Your task to perform on an android device: remove spam from my inbox in the gmail app Image 0: 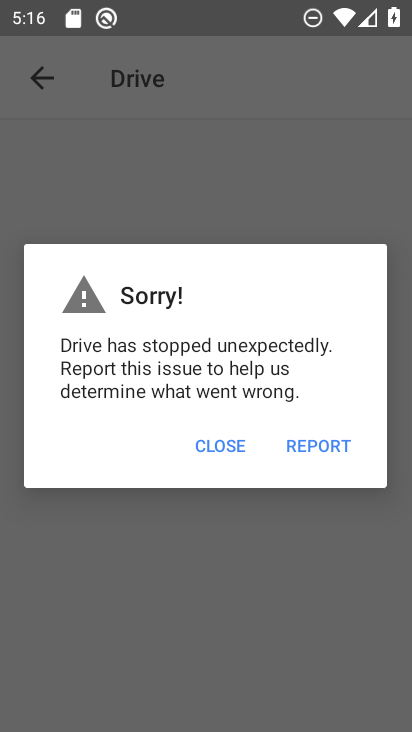
Step 0: press back button
Your task to perform on an android device: remove spam from my inbox in the gmail app Image 1: 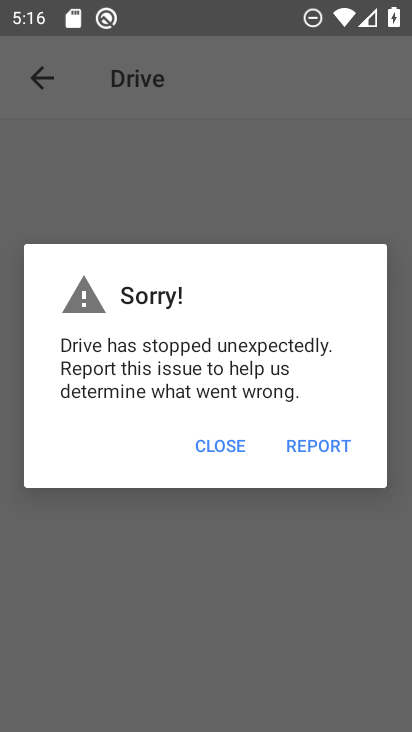
Step 1: press home button
Your task to perform on an android device: remove spam from my inbox in the gmail app Image 2: 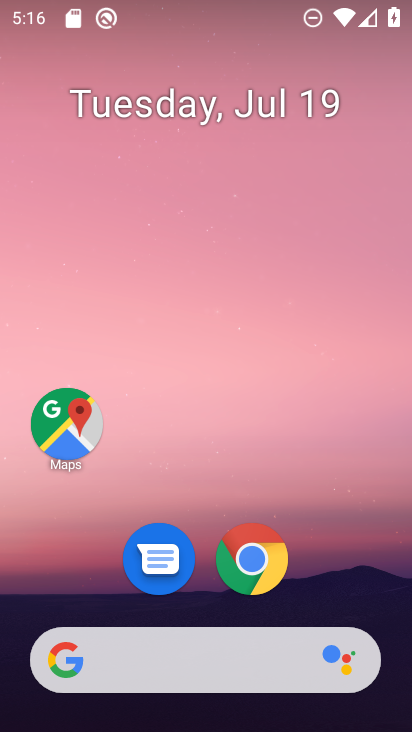
Step 2: drag from (205, 604) to (285, 0)
Your task to perform on an android device: remove spam from my inbox in the gmail app Image 3: 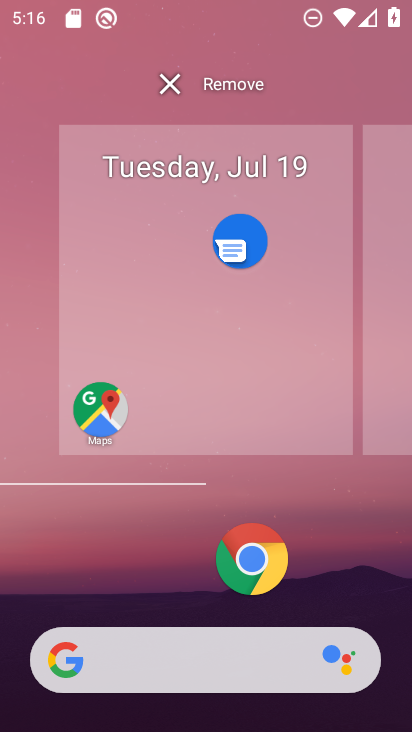
Step 3: click (152, 561)
Your task to perform on an android device: remove spam from my inbox in the gmail app Image 4: 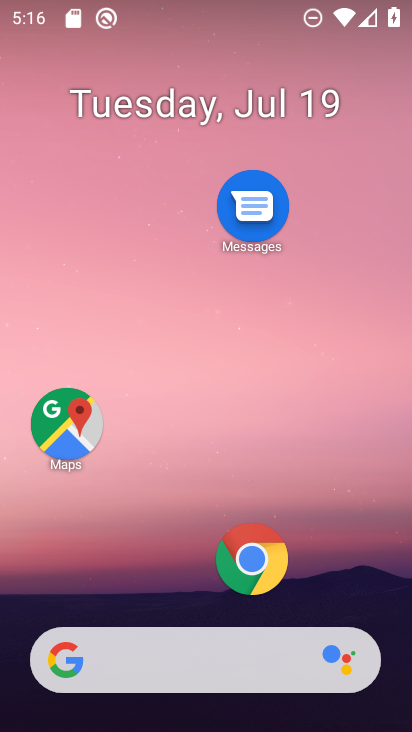
Step 4: drag from (169, 608) to (257, 0)
Your task to perform on an android device: remove spam from my inbox in the gmail app Image 5: 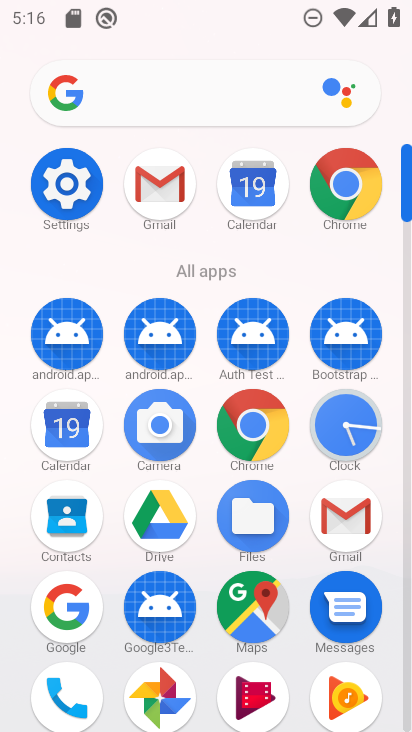
Step 5: click (158, 186)
Your task to perform on an android device: remove spam from my inbox in the gmail app Image 6: 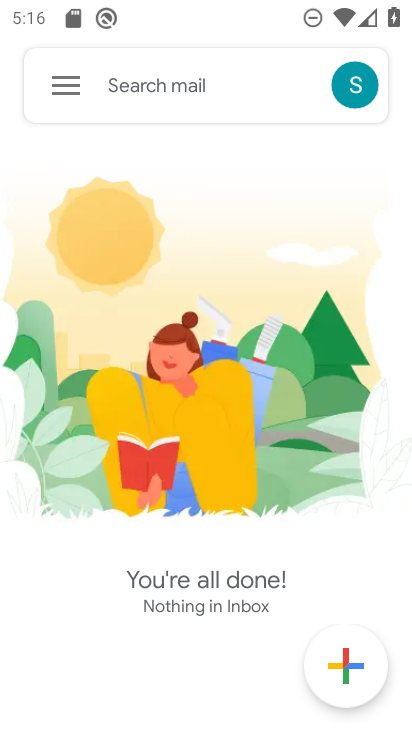
Step 6: click (54, 79)
Your task to perform on an android device: remove spam from my inbox in the gmail app Image 7: 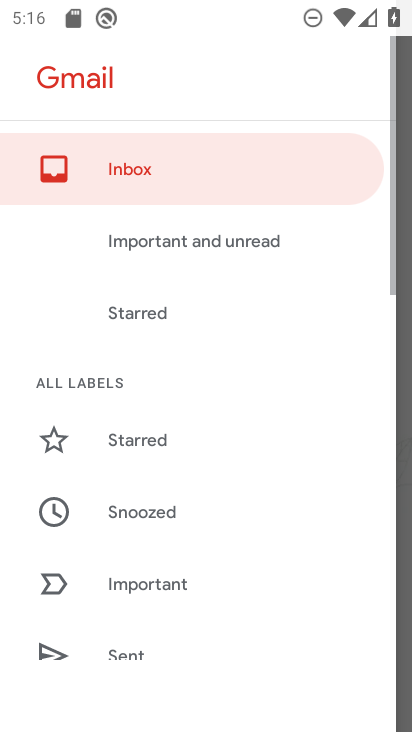
Step 7: drag from (183, 662) to (250, 116)
Your task to perform on an android device: remove spam from my inbox in the gmail app Image 8: 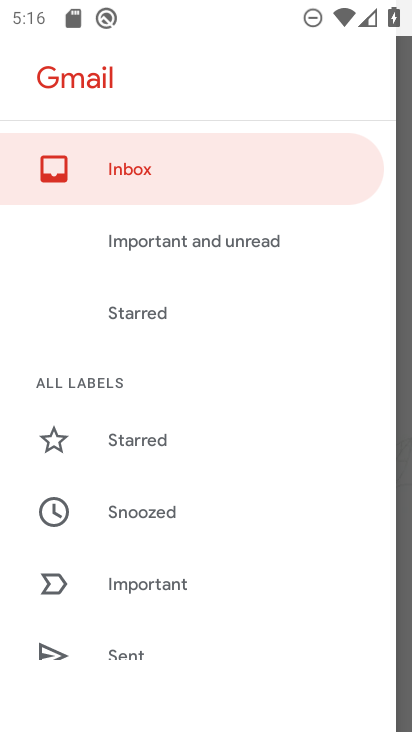
Step 8: drag from (162, 612) to (240, 92)
Your task to perform on an android device: remove spam from my inbox in the gmail app Image 9: 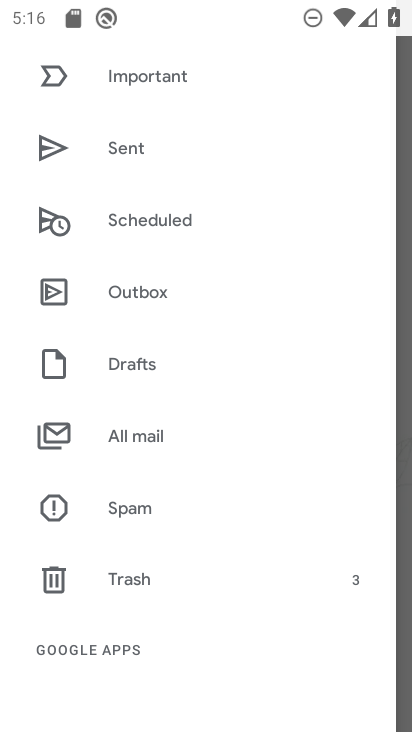
Step 9: click (184, 500)
Your task to perform on an android device: remove spam from my inbox in the gmail app Image 10: 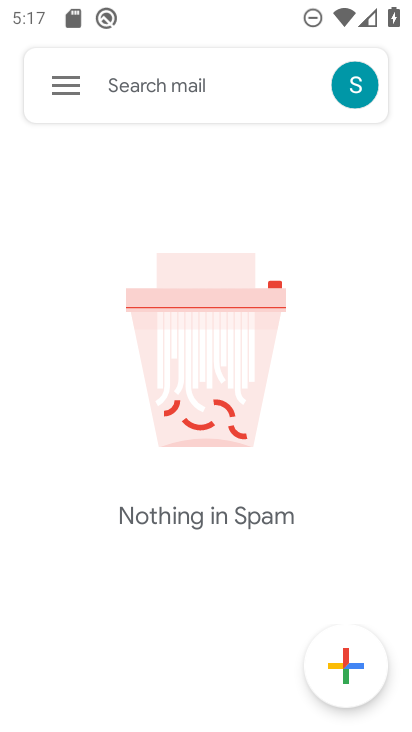
Step 10: task complete